Your task to perform on an android device: Open Google Chrome and click the shortcut for Amazon.com Image 0: 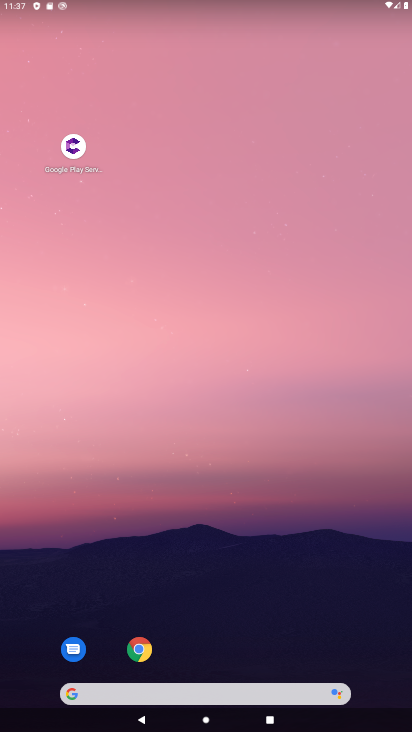
Step 0: click (137, 651)
Your task to perform on an android device: Open Google Chrome and click the shortcut for Amazon.com Image 1: 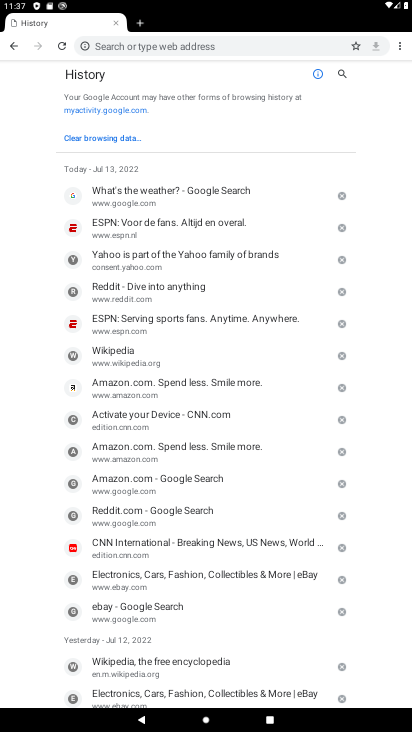
Step 1: click (137, 24)
Your task to perform on an android device: Open Google Chrome and click the shortcut for Amazon.com Image 2: 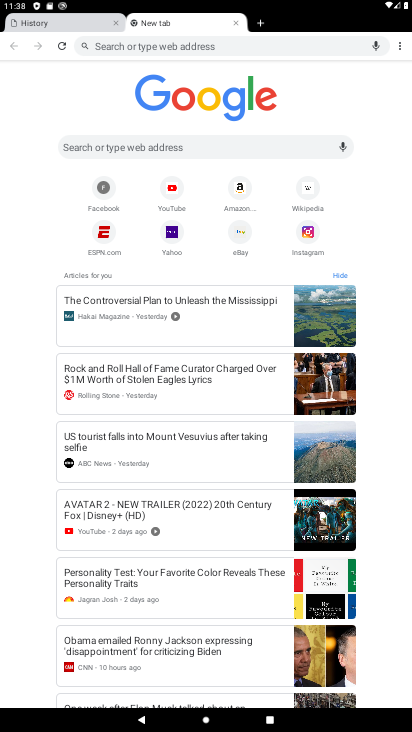
Step 2: click (239, 192)
Your task to perform on an android device: Open Google Chrome and click the shortcut for Amazon.com Image 3: 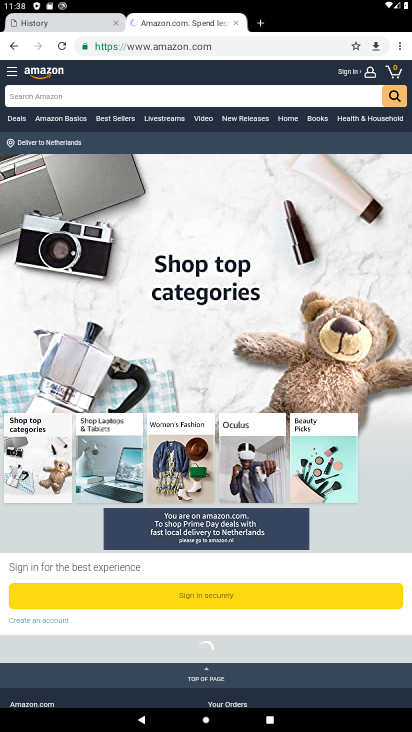
Step 3: task complete